Your task to perform on an android device: Open Amazon Image 0: 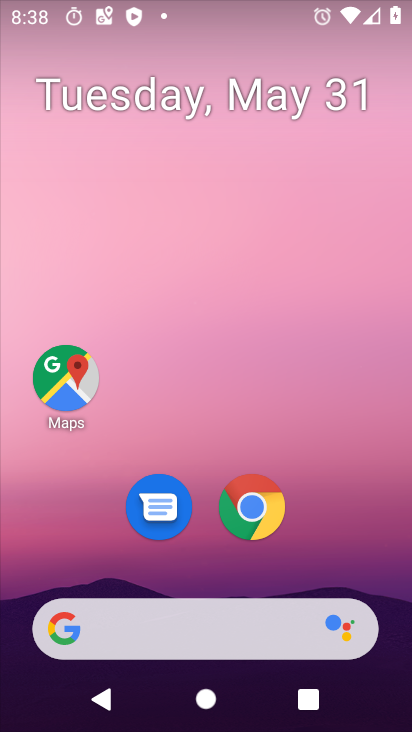
Step 0: click (259, 517)
Your task to perform on an android device: Open Amazon Image 1: 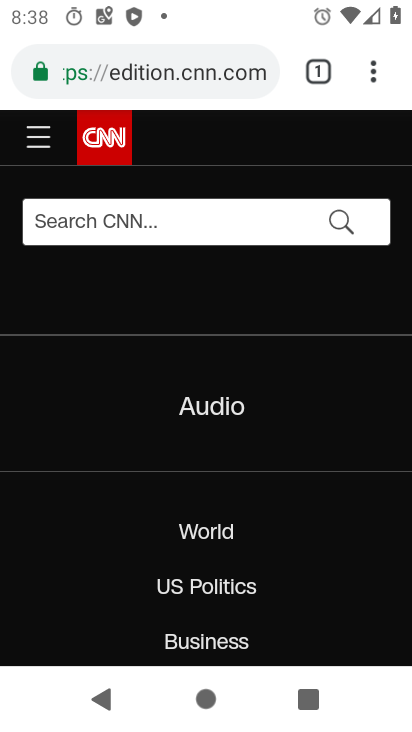
Step 1: click (134, 75)
Your task to perform on an android device: Open Amazon Image 2: 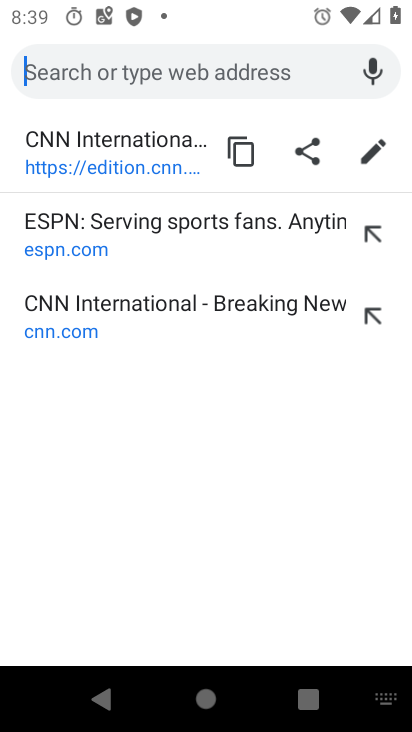
Step 2: type "amazon"
Your task to perform on an android device: Open Amazon Image 3: 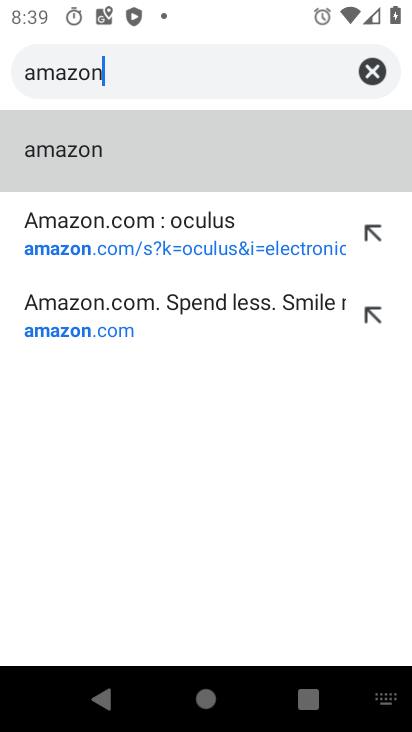
Step 3: click (71, 154)
Your task to perform on an android device: Open Amazon Image 4: 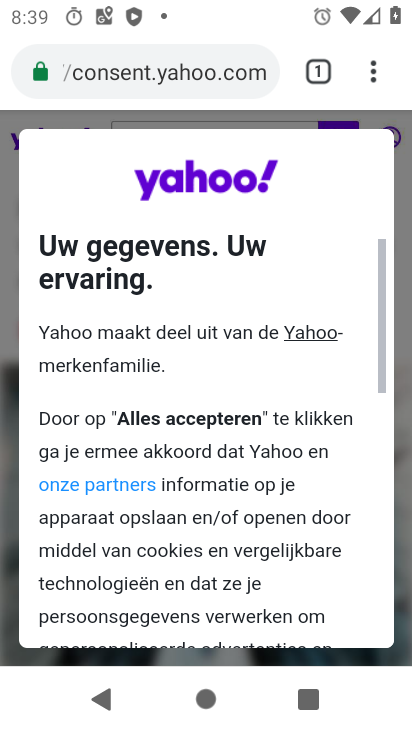
Step 4: drag from (189, 564) to (205, 238)
Your task to perform on an android device: Open Amazon Image 5: 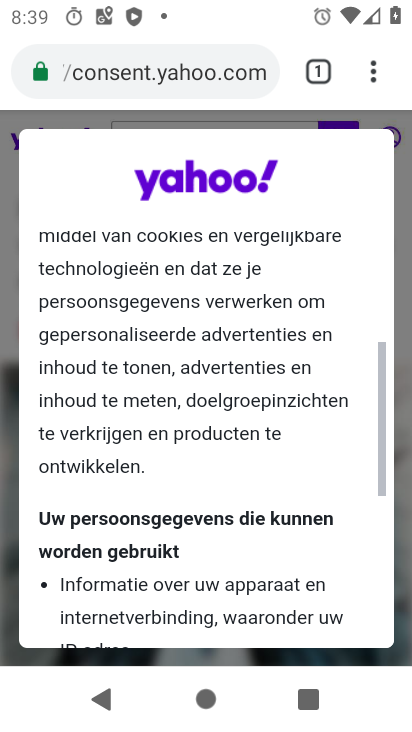
Step 5: drag from (148, 600) to (195, 252)
Your task to perform on an android device: Open Amazon Image 6: 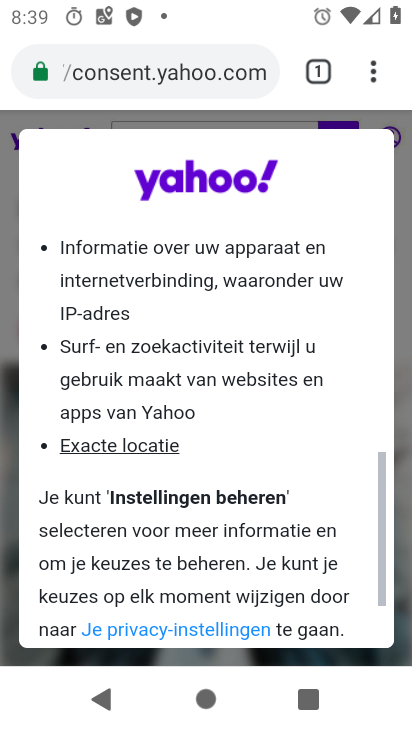
Step 6: drag from (184, 582) to (185, 236)
Your task to perform on an android device: Open Amazon Image 7: 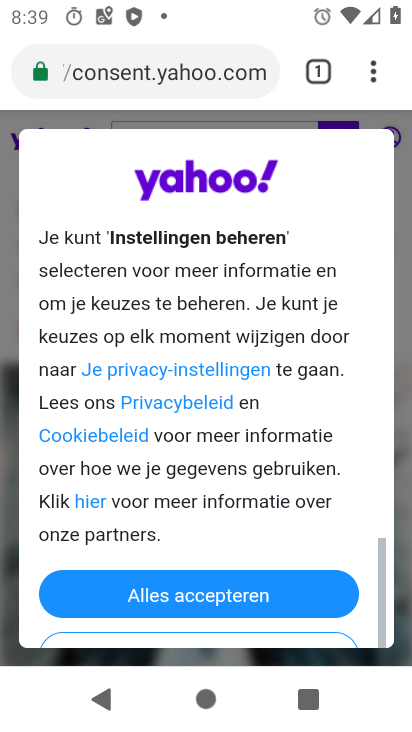
Step 7: click (185, 600)
Your task to perform on an android device: Open Amazon Image 8: 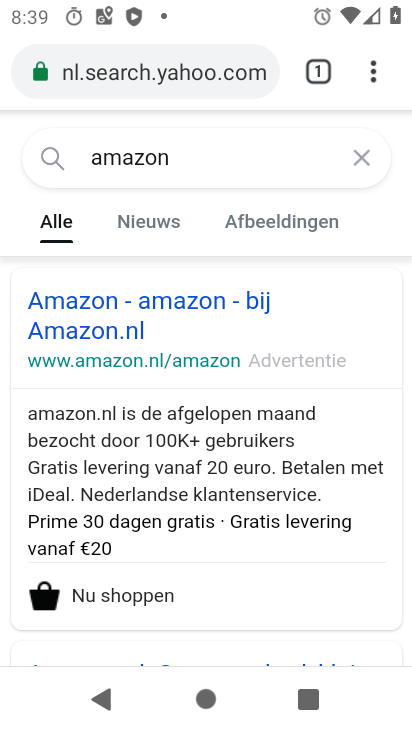
Step 8: click (81, 337)
Your task to perform on an android device: Open Amazon Image 9: 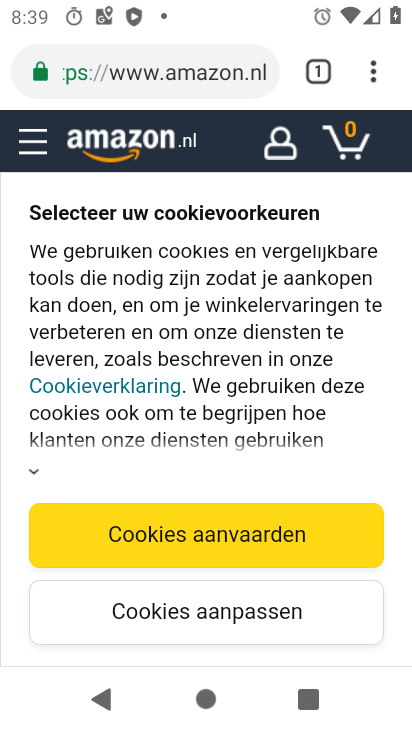
Step 9: task complete